Your task to perform on an android device: toggle pop-ups in chrome Image 0: 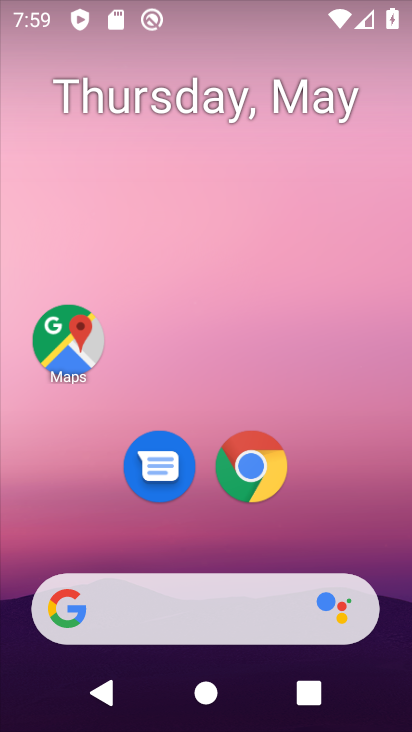
Step 0: click (234, 461)
Your task to perform on an android device: toggle pop-ups in chrome Image 1: 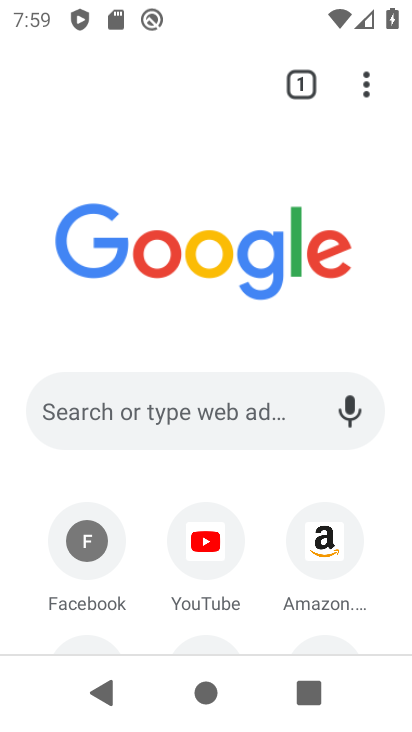
Step 1: click (372, 92)
Your task to perform on an android device: toggle pop-ups in chrome Image 2: 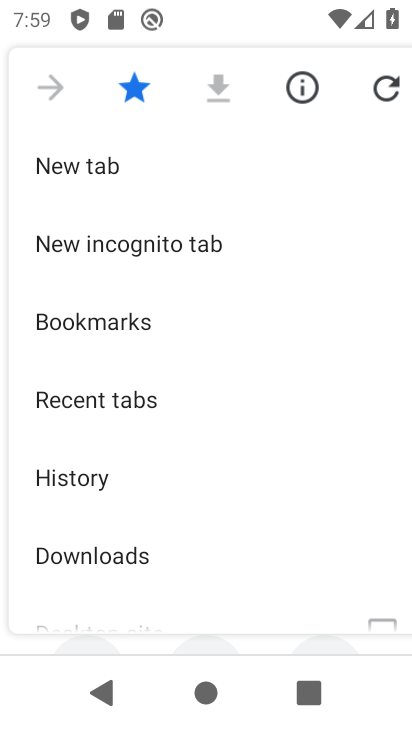
Step 2: drag from (224, 477) to (206, 157)
Your task to perform on an android device: toggle pop-ups in chrome Image 3: 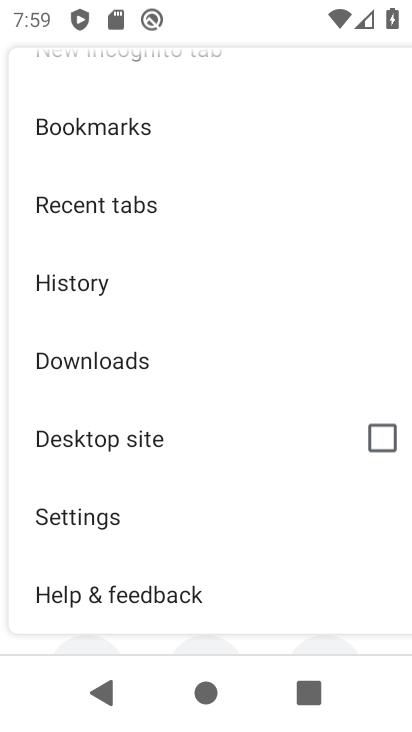
Step 3: click (94, 520)
Your task to perform on an android device: toggle pop-ups in chrome Image 4: 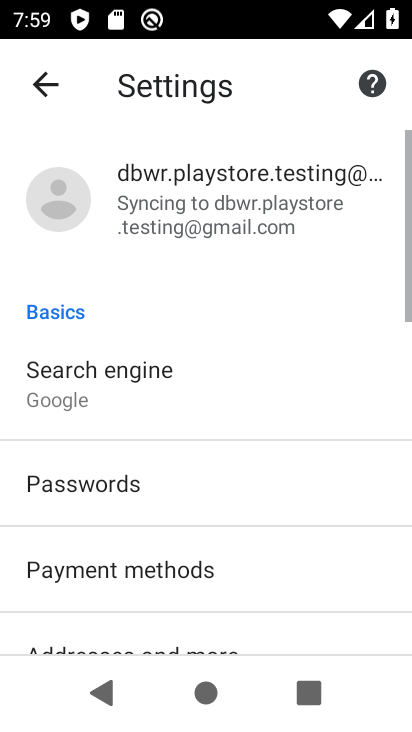
Step 4: drag from (99, 527) to (36, 20)
Your task to perform on an android device: toggle pop-ups in chrome Image 5: 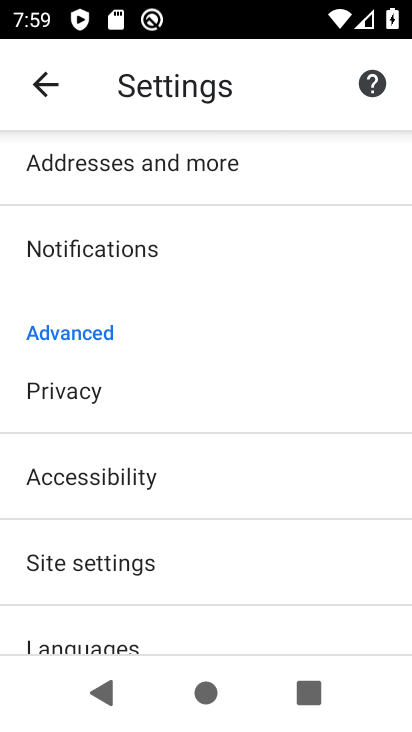
Step 5: click (116, 573)
Your task to perform on an android device: toggle pop-ups in chrome Image 6: 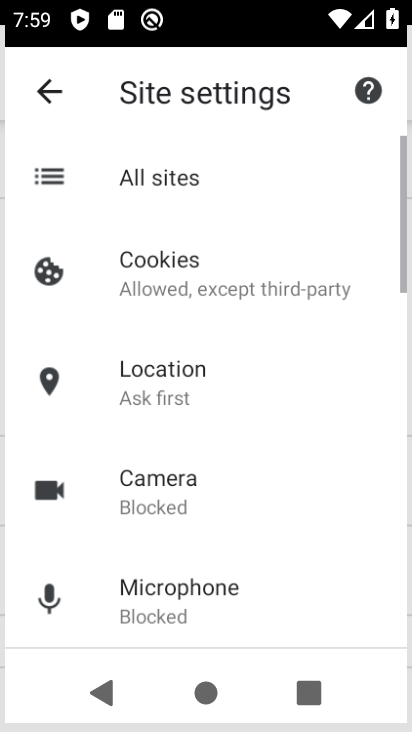
Step 6: drag from (115, 572) to (61, 52)
Your task to perform on an android device: toggle pop-ups in chrome Image 7: 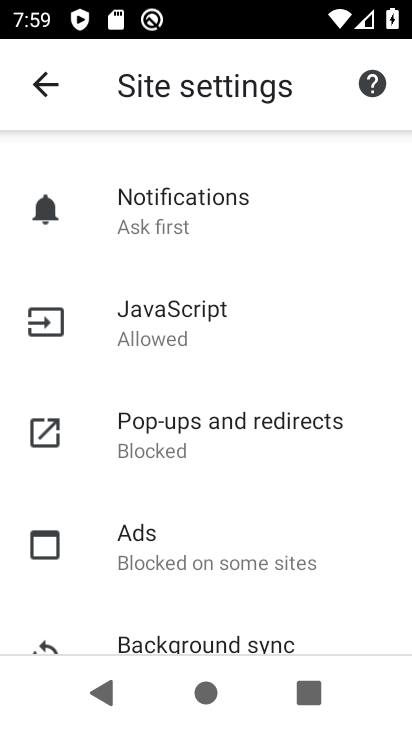
Step 7: click (151, 412)
Your task to perform on an android device: toggle pop-ups in chrome Image 8: 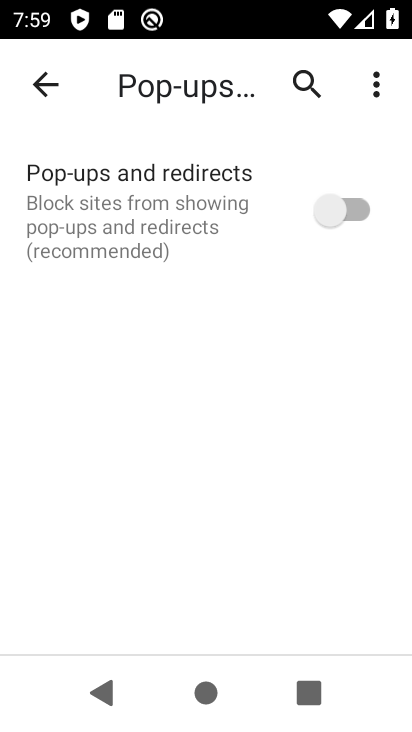
Step 8: click (344, 207)
Your task to perform on an android device: toggle pop-ups in chrome Image 9: 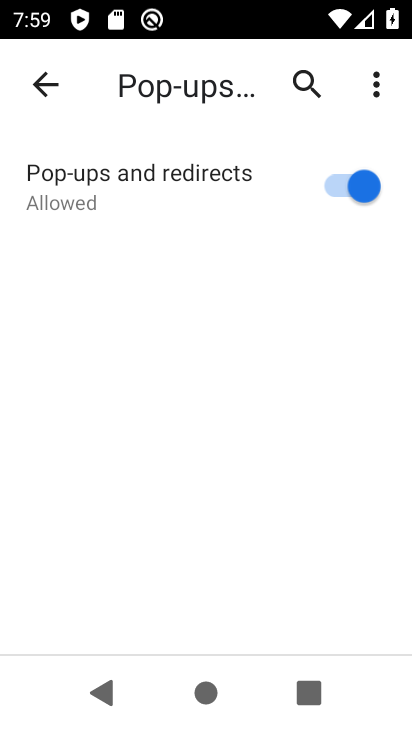
Step 9: task complete